Your task to perform on an android device: toggle improve location accuracy Image 0: 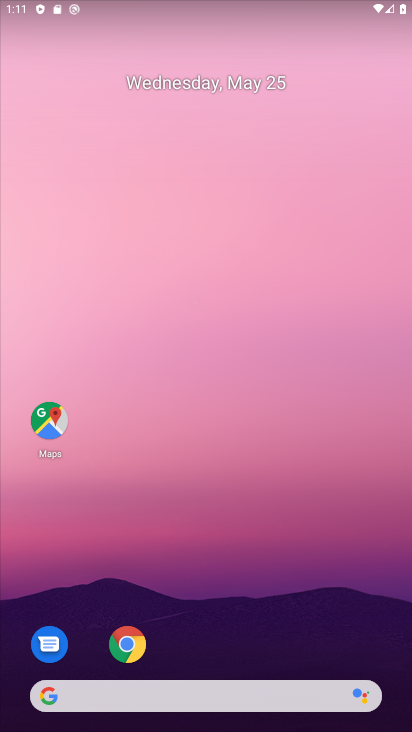
Step 0: drag from (213, 636) to (229, 73)
Your task to perform on an android device: toggle improve location accuracy Image 1: 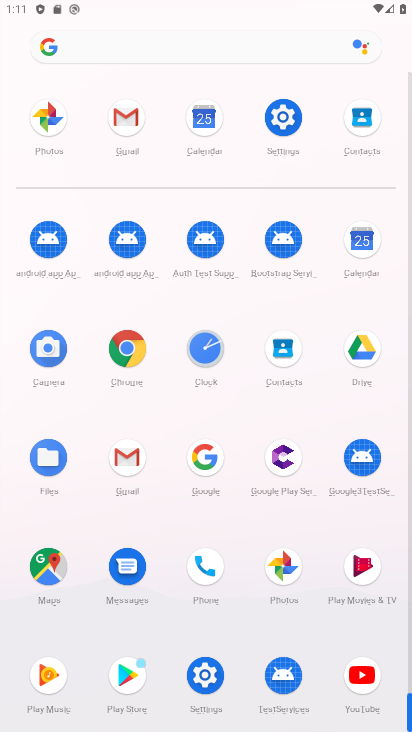
Step 1: click (295, 118)
Your task to perform on an android device: toggle improve location accuracy Image 2: 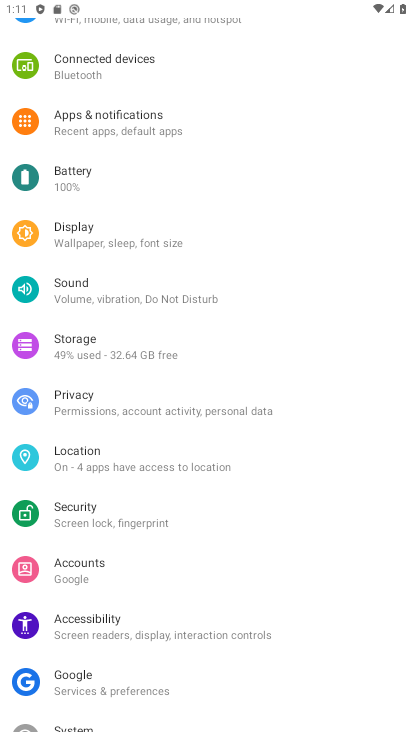
Step 2: click (71, 461)
Your task to perform on an android device: toggle improve location accuracy Image 3: 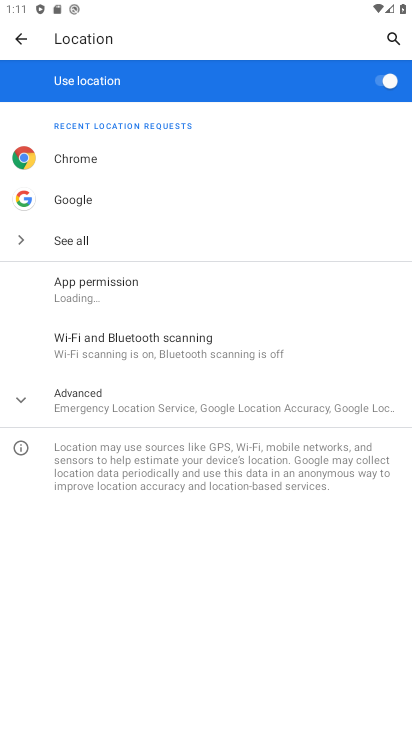
Step 3: click (66, 396)
Your task to perform on an android device: toggle improve location accuracy Image 4: 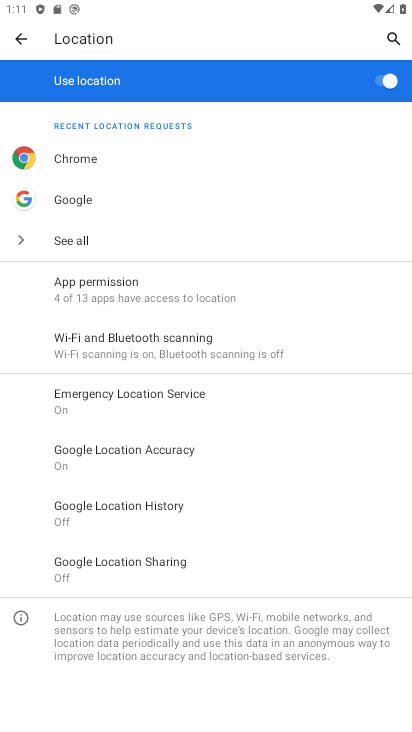
Step 4: click (99, 452)
Your task to perform on an android device: toggle improve location accuracy Image 5: 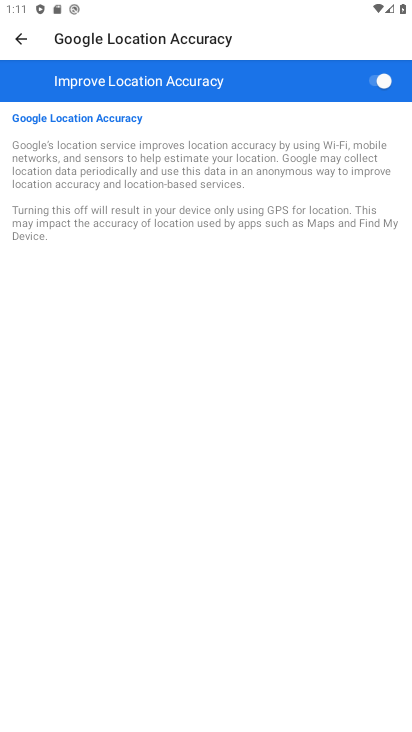
Step 5: click (366, 79)
Your task to perform on an android device: toggle improve location accuracy Image 6: 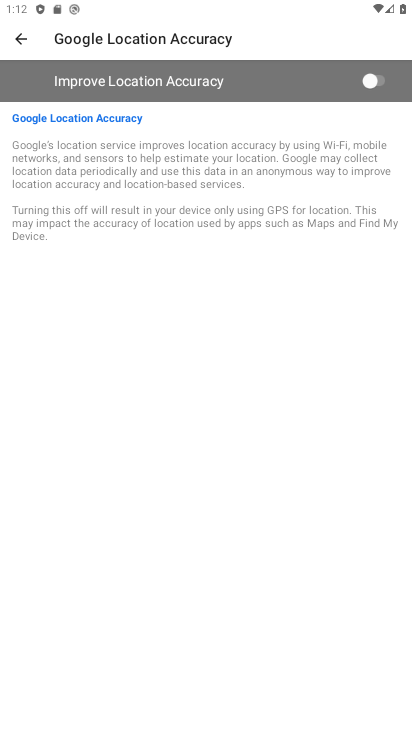
Step 6: task complete